Your task to perform on an android device: add a contact Image 0: 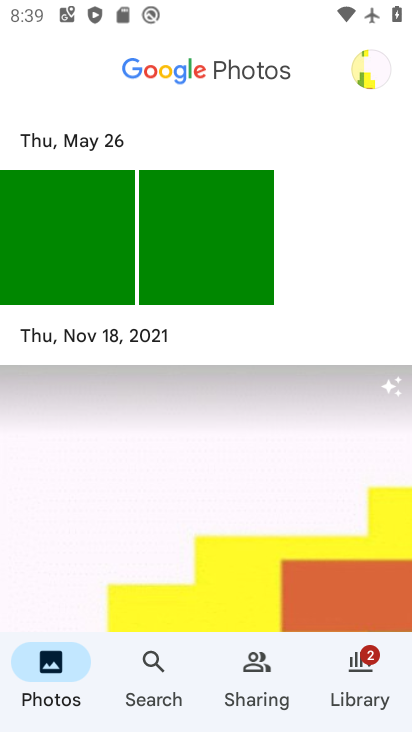
Step 0: press home button
Your task to perform on an android device: add a contact Image 1: 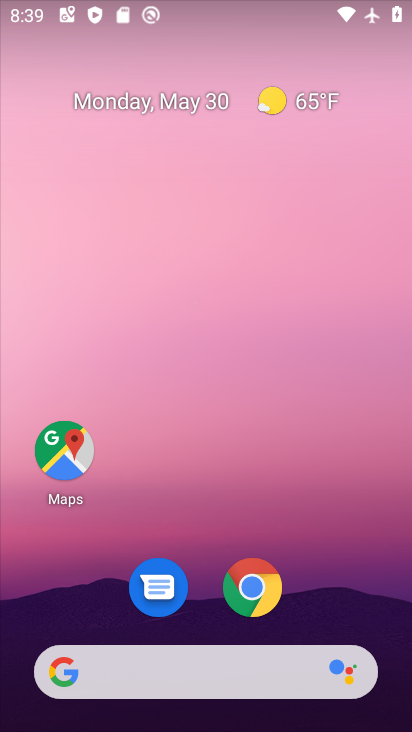
Step 1: drag from (155, 675) to (336, 129)
Your task to perform on an android device: add a contact Image 2: 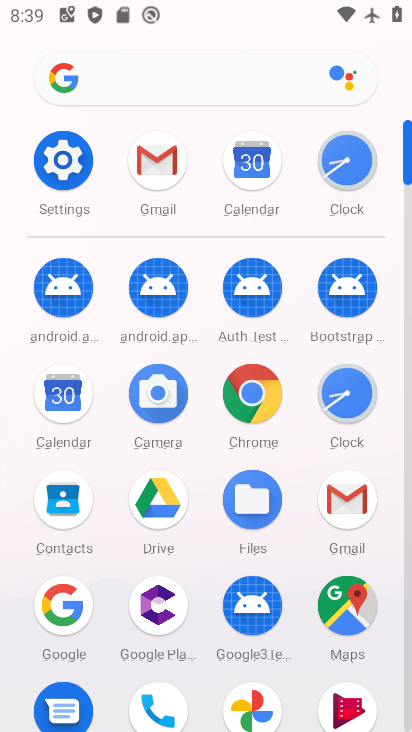
Step 2: click (56, 495)
Your task to perform on an android device: add a contact Image 3: 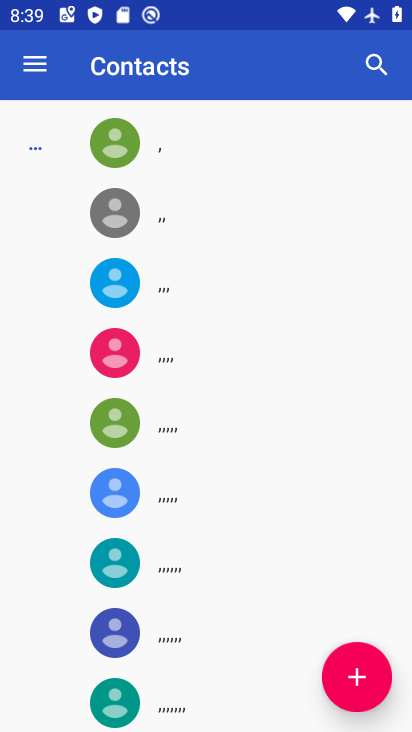
Step 3: click (354, 680)
Your task to perform on an android device: add a contact Image 4: 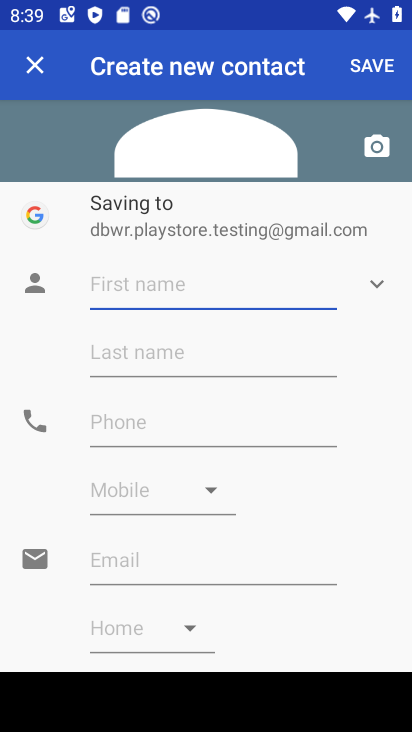
Step 4: type "rhfjghy"
Your task to perform on an android device: add a contact Image 5: 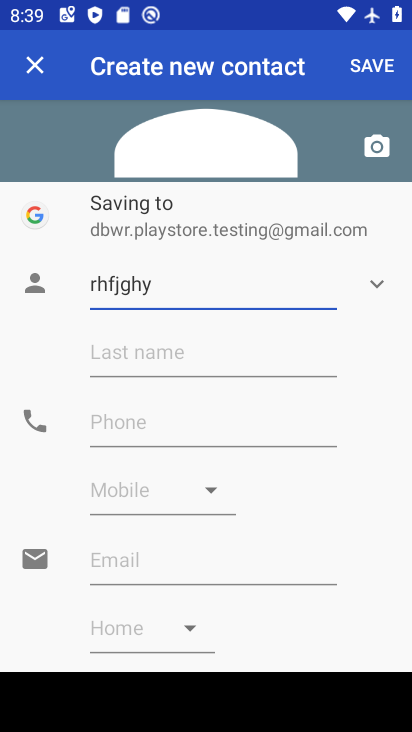
Step 5: click (125, 424)
Your task to perform on an android device: add a contact Image 6: 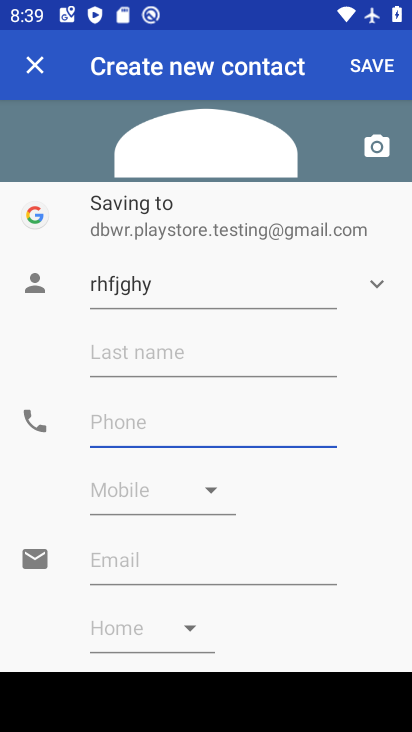
Step 6: type "856677"
Your task to perform on an android device: add a contact Image 7: 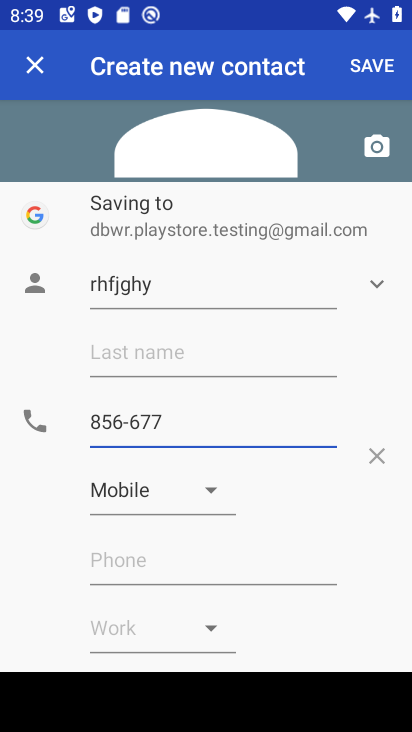
Step 7: click (382, 64)
Your task to perform on an android device: add a contact Image 8: 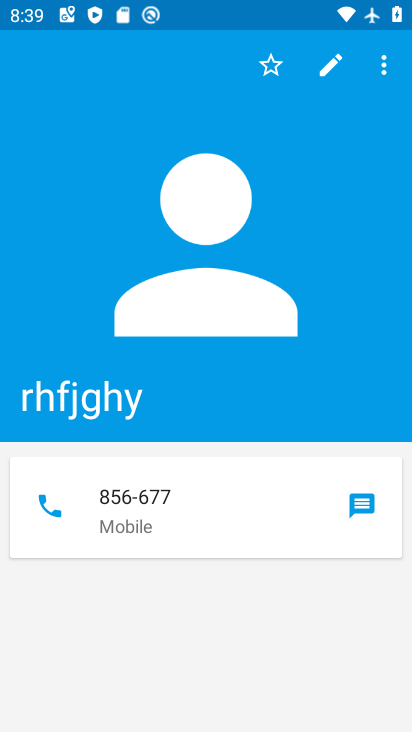
Step 8: task complete